Your task to perform on an android device: Go to settings Image 0: 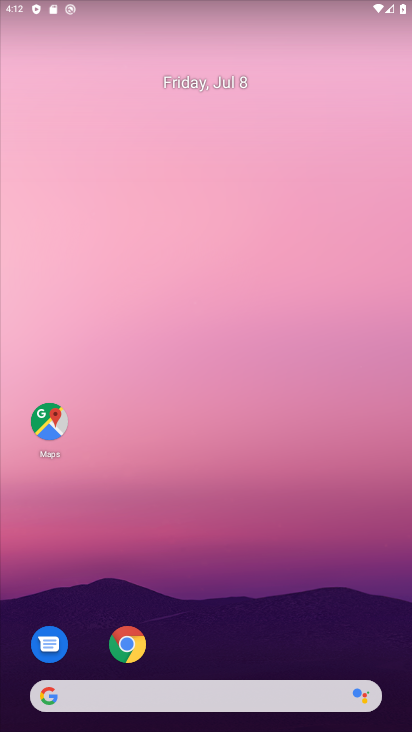
Step 0: drag from (190, 666) to (191, 194)
Your task to perform on an android device: Go to settings Image 1: 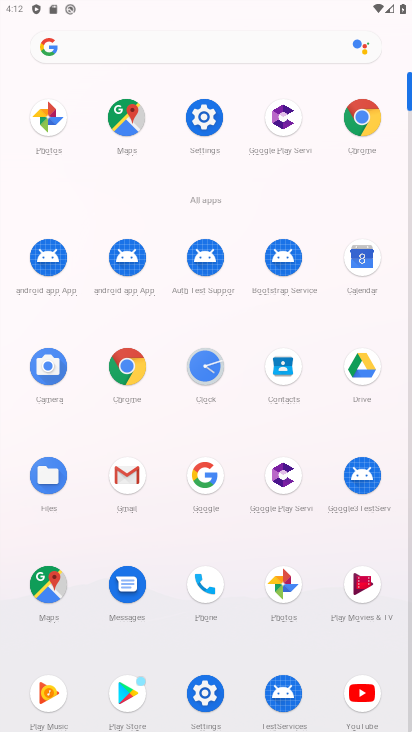
Step 1: click (222, 108)
Your task to perform on an android device: Go to settings Image 2: 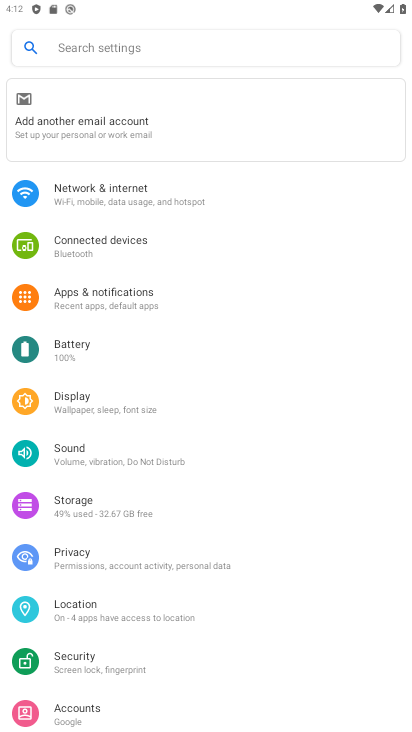
Step 2: task complete